Your task to perform on an android device: What's on my calendar today? Image 0: 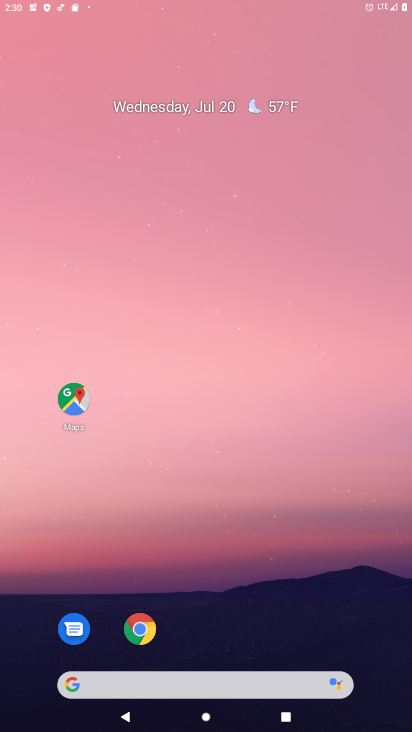
Step 0: click (366, 97)
Your task to perform on an android device: What's on my calendar today? Image 1: 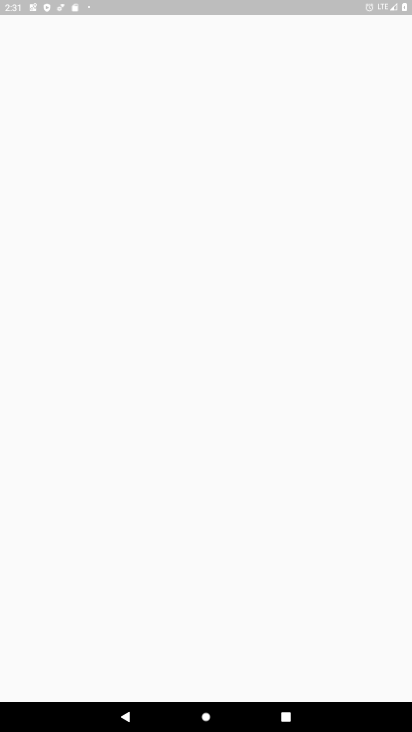
Step 1: press home button
Your task to perform on an android device: What's on my calendar today? Image 2: 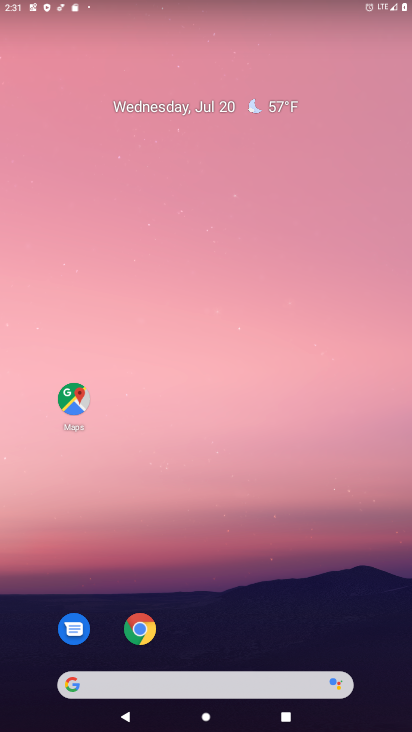
Step 2: drag from (333, 298) to (335, 110)
Your task to perform on an android device: What's on my calendar today? Image 3: 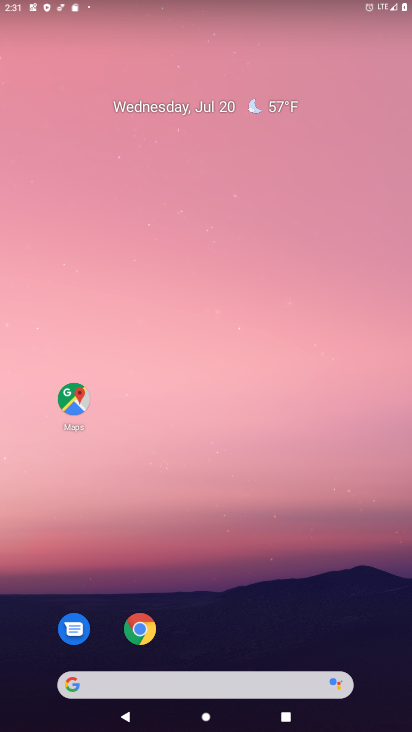
Step 3: drag from (381, 654) to (342, 51)
Your task to perform on an android device: What's on my calendar today? Image 4: 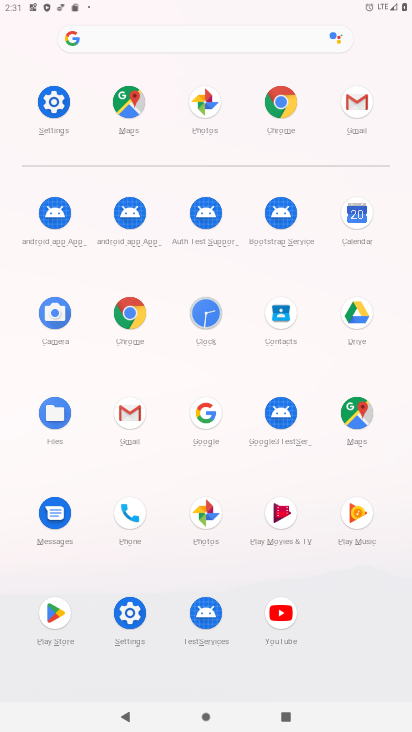
Step 4: click (357, 212)
Your task to perform on an android device: What's on my calendar today? Image 5: 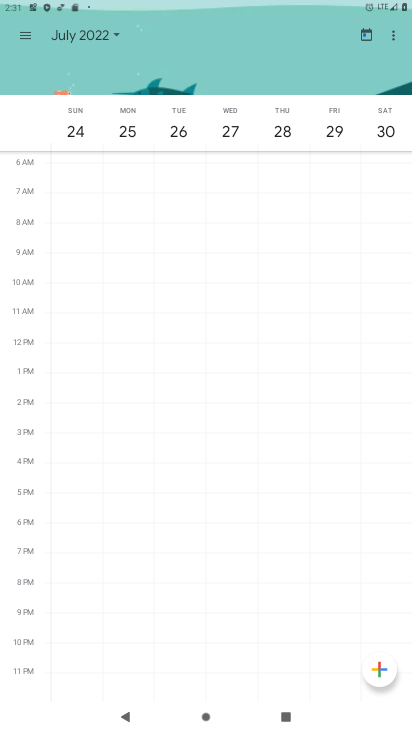
Step 5: click (25, 35)
Your task to perform on an android device: What's on my calendar today? Image 6: 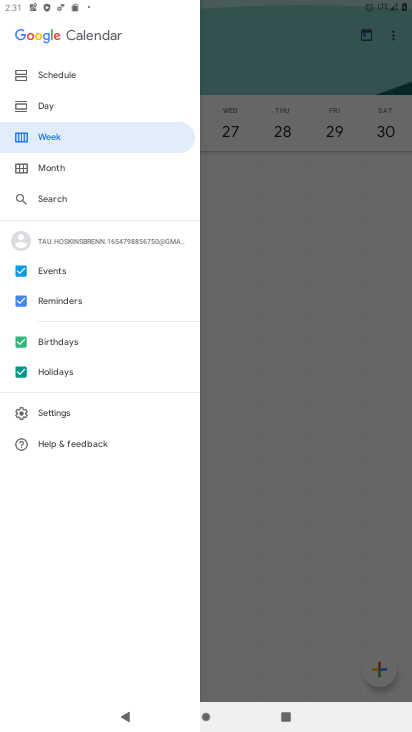
Step 6: click (43, 101)
Your task to perform on an android device: What's on my calendar today? Image 7: 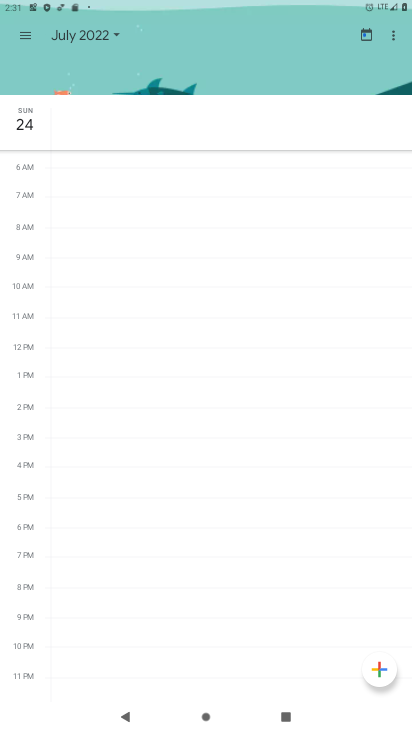
Step 7: click (112, 30)
Your task to perform on an android device: What's on my calendar today? Image 8: 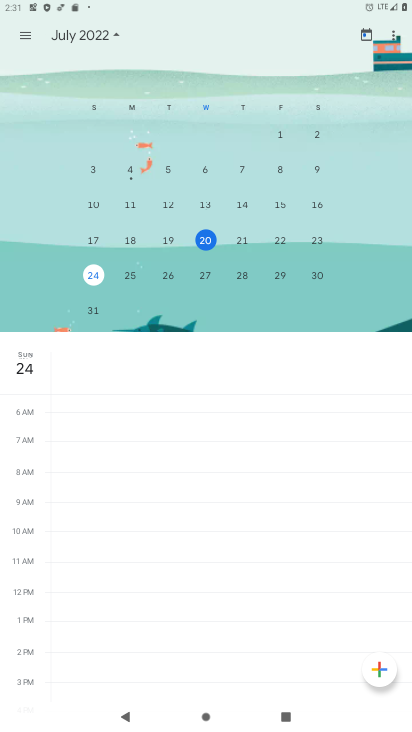
Step 8: click (208, 239)
Your task to perform on an android device: What's on my calendar today? Image 9: 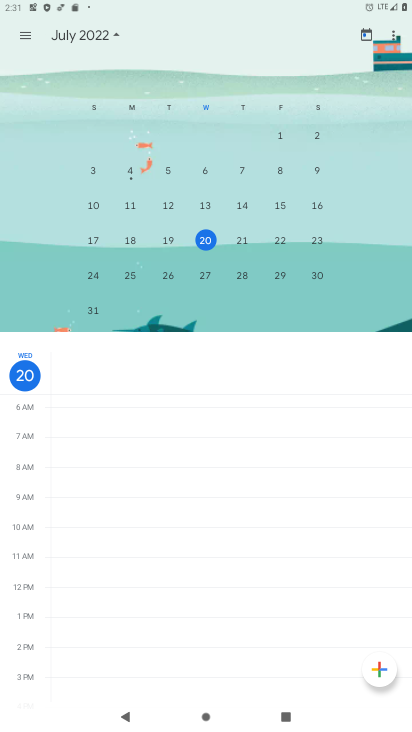
Step 9: task complete